Your task to perform on an android device: How much does a 2 bedroom apartment rent for in Philadelphia? Image 0: 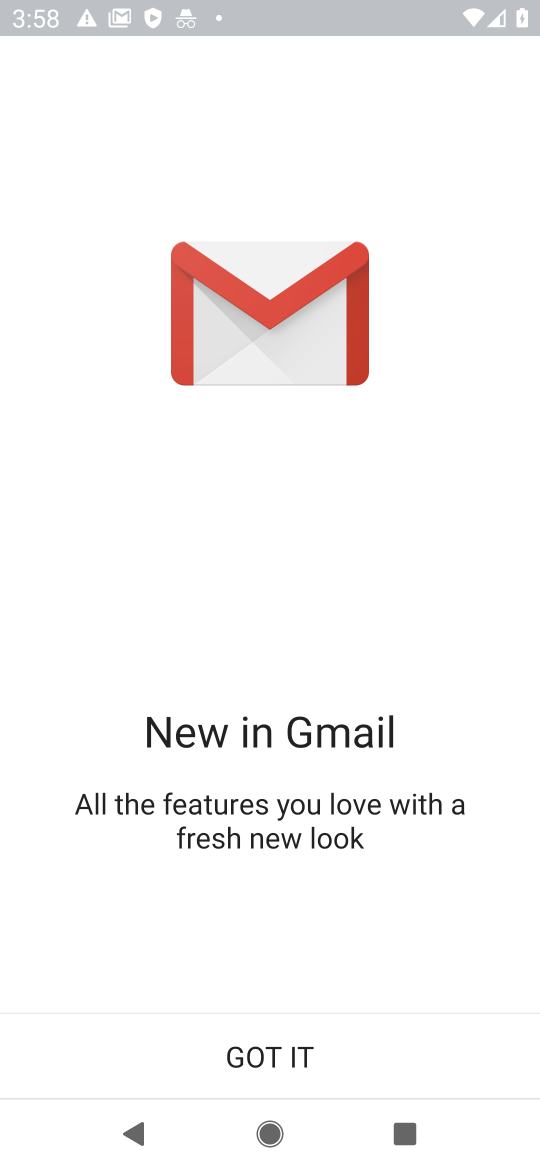
Step 0: press home button
Your task to perform on an android device: How much does a 2 bedroom apartment rent for in Philadelphia? Image 1: 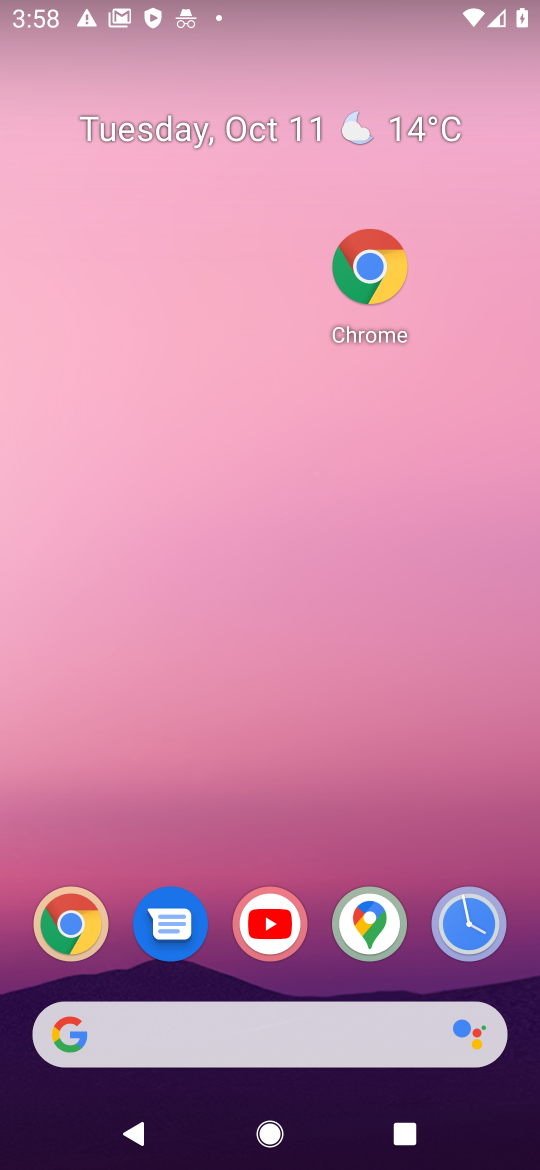
Step 1: click (374, 252)
Your task to perform on an android device: How much does a 2 bedroom apartment rent for in Philadelphia? Image 2: 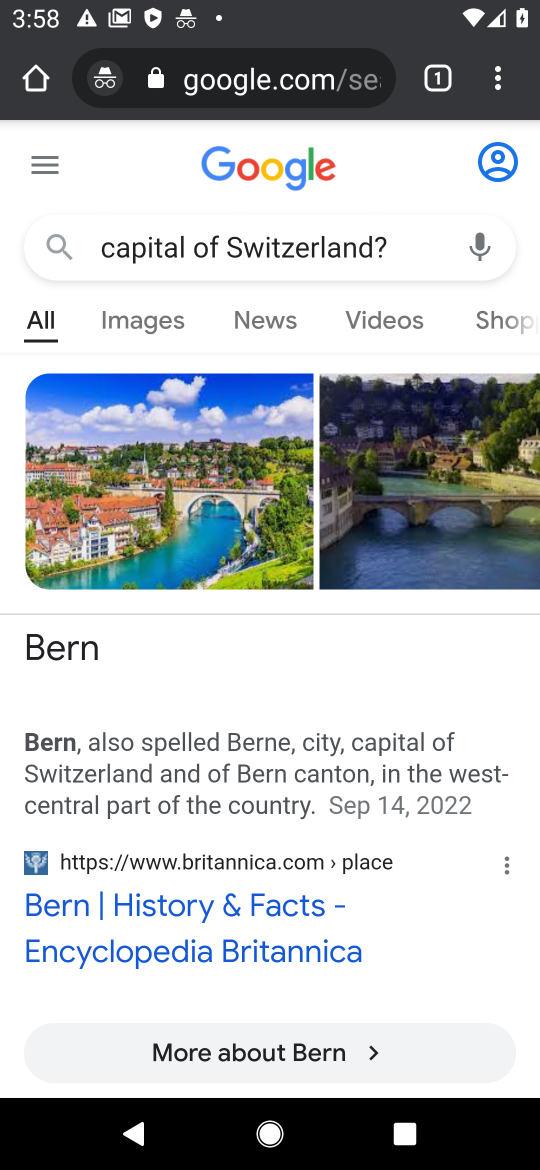
Step 2: click (238, 72)
Your task to perform on an android device: How much does a 2 bedroom apartment rent for in Philadelphia? Image 3: 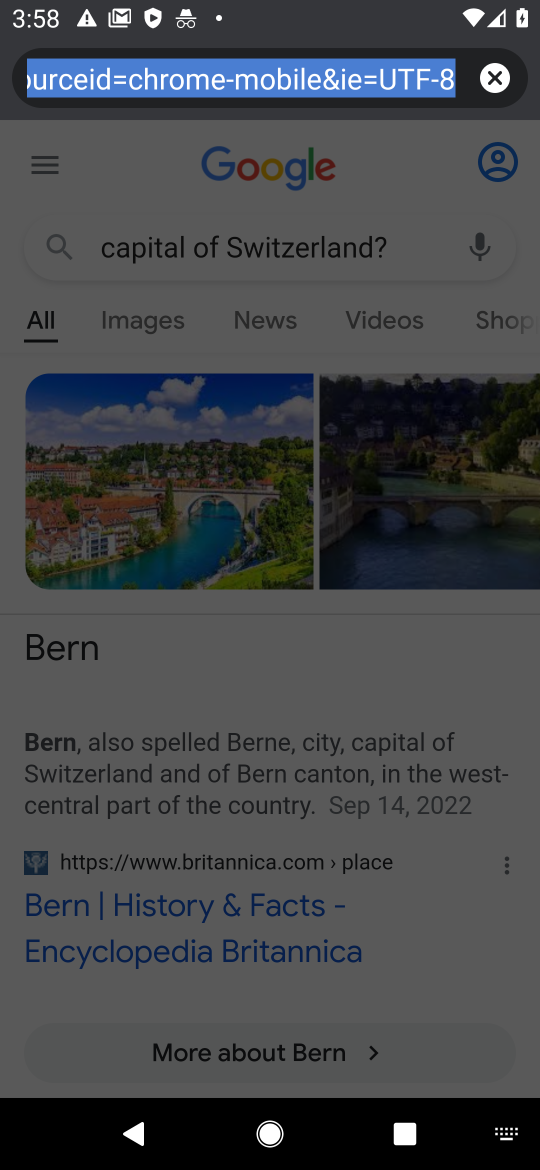
Step 3: type "How much does a 2 bedroom apartment rent for in Philadelphia?"
Your task to perform on an android device: How much does a 2 bedroom apartment rent for in Philadelphia? Image 4: 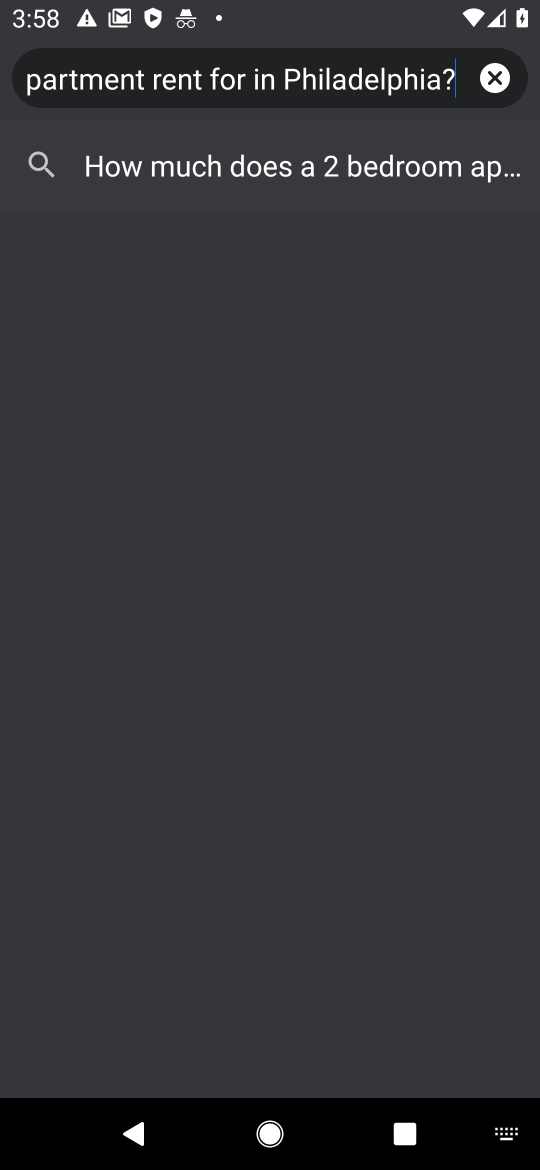
Step 4: click (468, 163)
Your task to perform on an android device: How much does a 2 bedroom apartment rent for in Philadelphia? Image 5: 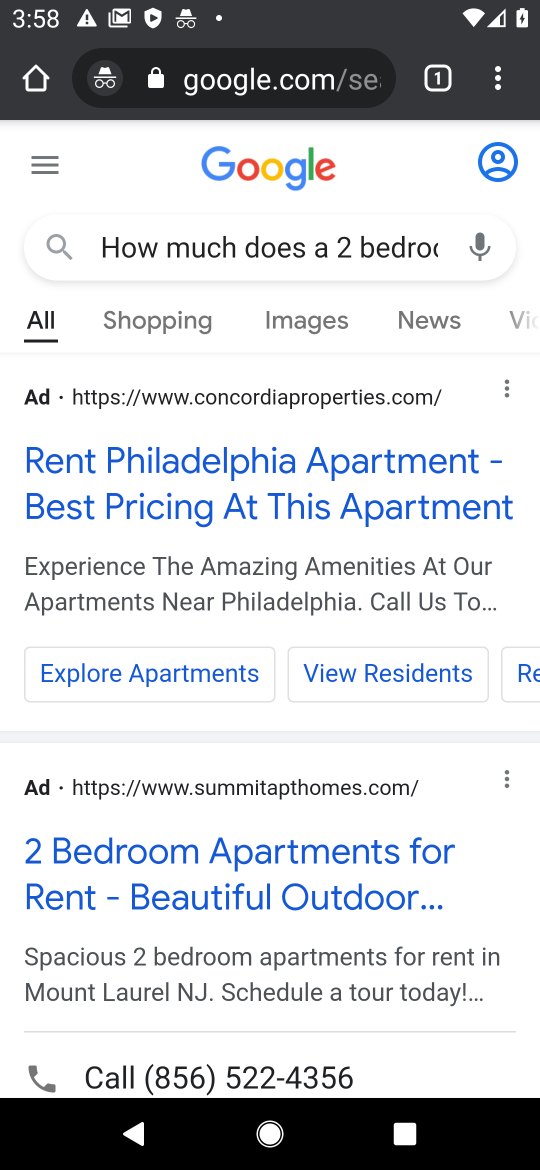
Step 5: drag from (469, 770) to (416, 202)
Your task to perform on an android device: How much does a 2 bedroom apartment rent for in Philadelphia? Image 6: 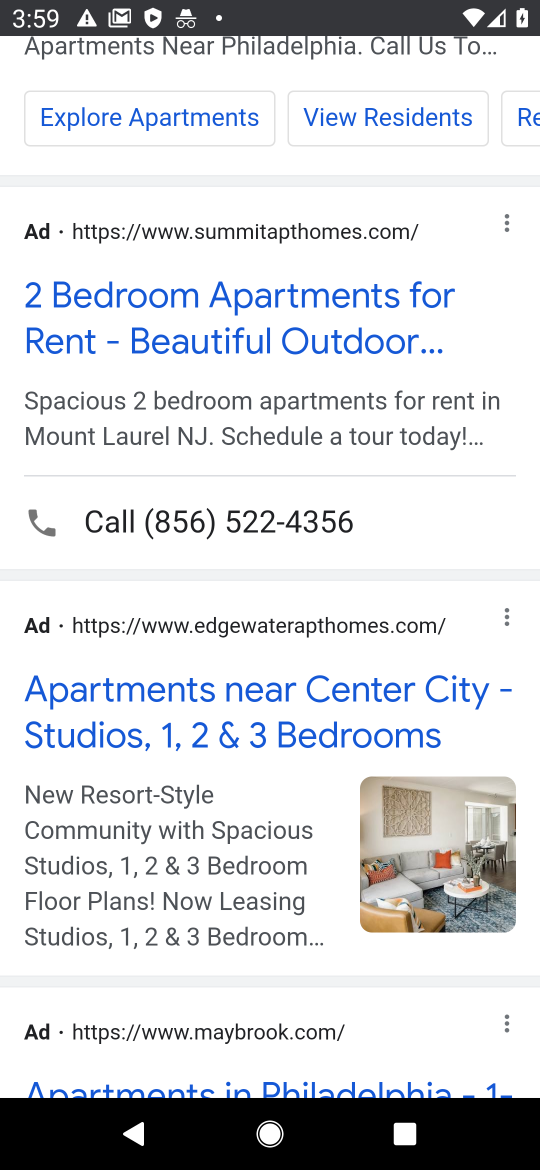
Step 6: drag from (445, 955) to (382, 250)
Your task to perform on an android device: How much does a 2 bedroom apartment rent for in Philadelphia? Image 7: 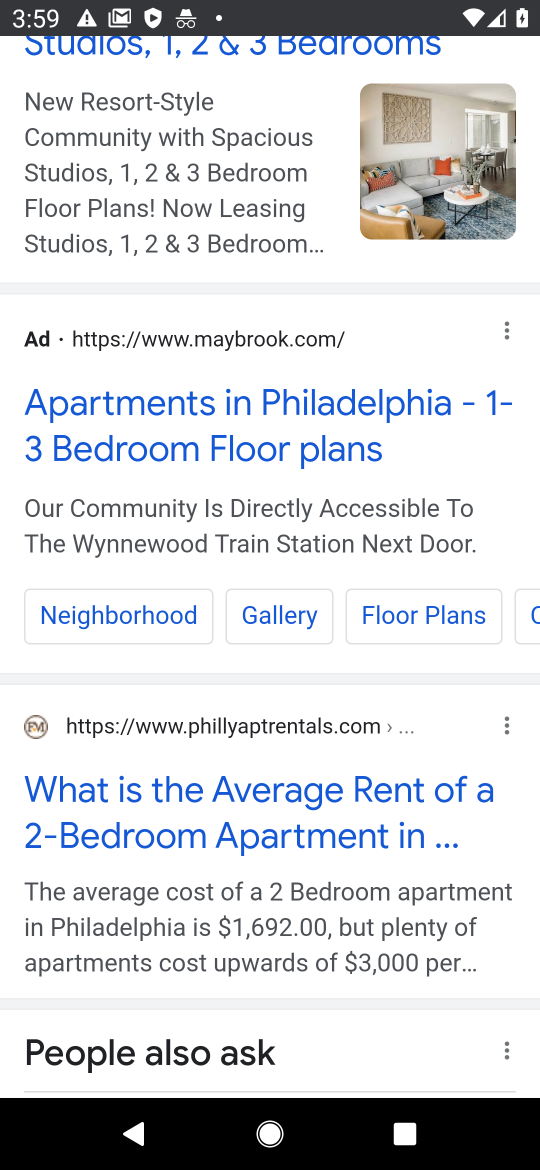
Step 7: click (369, 795)
Your task to perform on an android device: How much does a 2 bedroom apartment rent for in Philadelphia? Image 8: 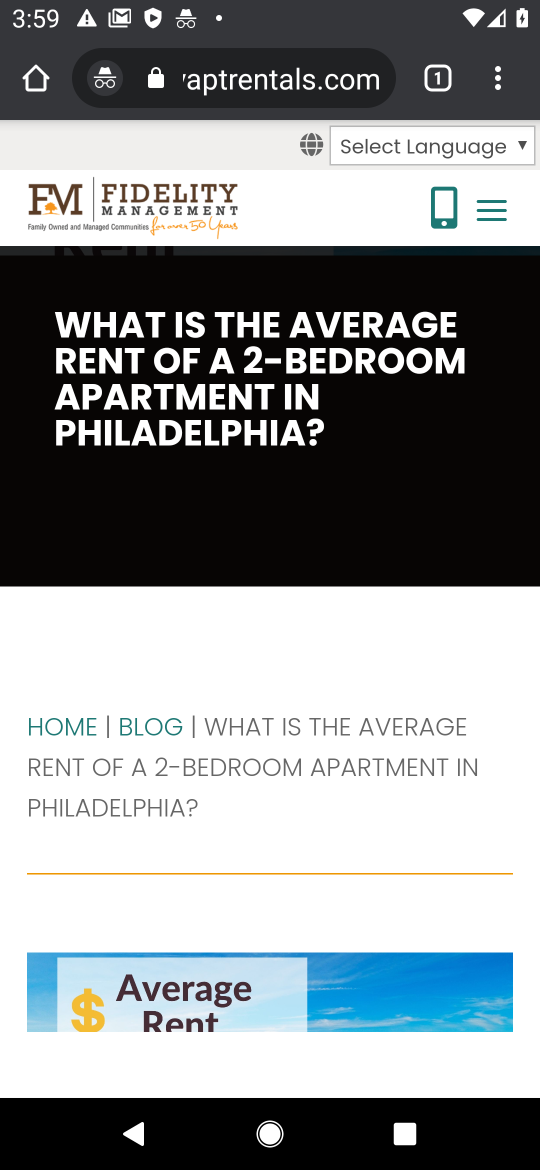
Step 8: task complete